Your task to perform on an android device: Open sound settings Image 0: 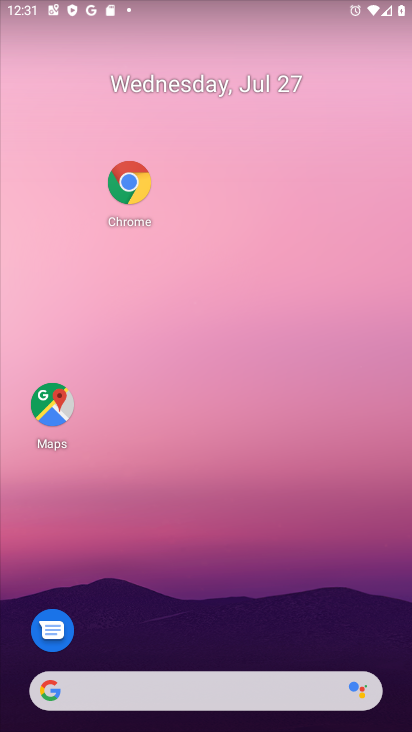
Step 0: drag from (220, 714) to (275, 67)
Your task to perform on an android device: Open sound settings Image 1: 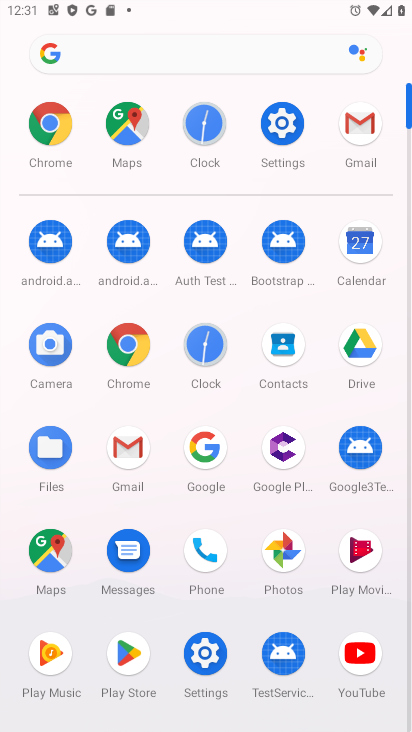
Step 1: click (285, 123)
Your task to perform on an android device: Open sound settings Image 2: 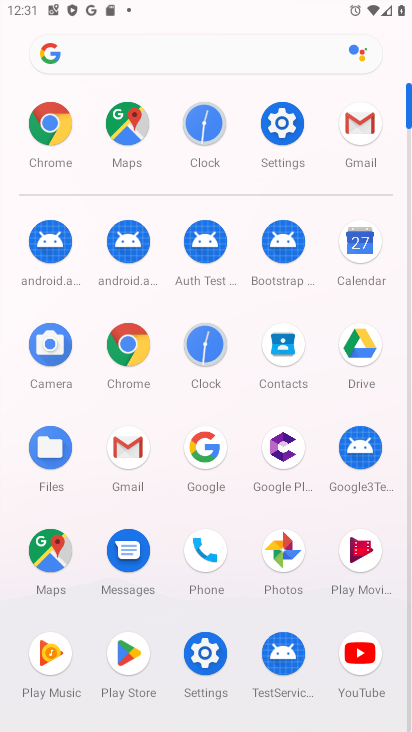
Step 2: click (285, 123)
Your task to perform on an android device: Open sound settings Image 3: 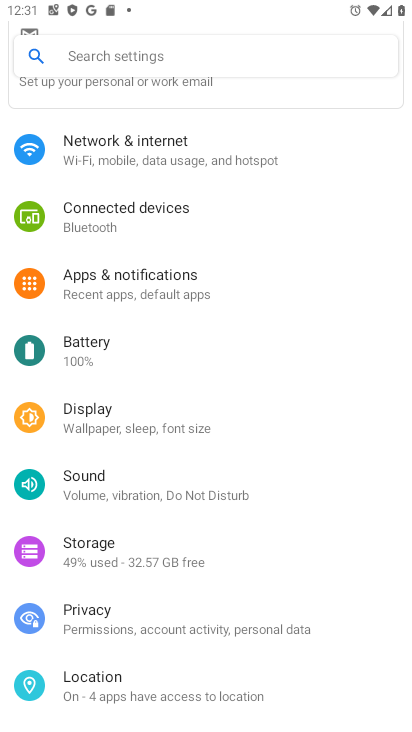
Step 3: click (168, 494)
Your task to perform on an android device: Open sound settings Image 4: 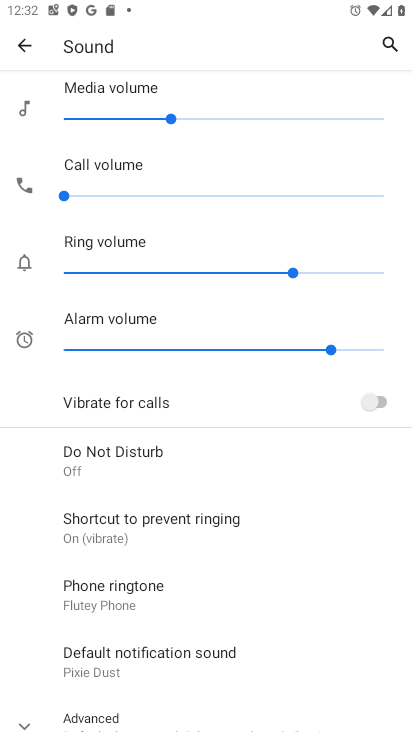
Step 4: task complete